Your task to perform on an android device: set default search engine in the chrome app Image 0: 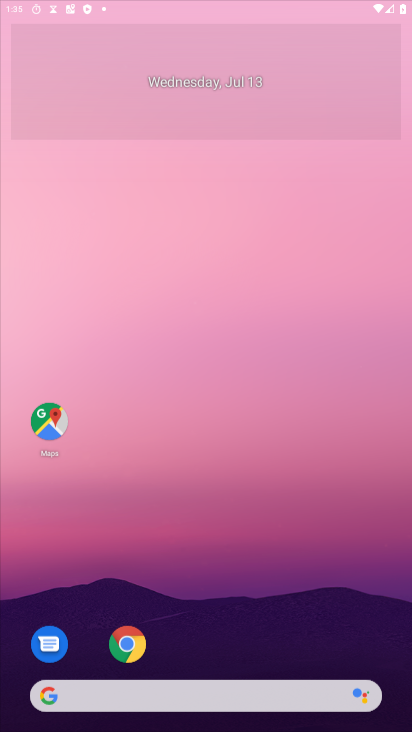
Step 0: press home button
Your task to perform on an android device: set default search engine in the chrome app Image 1: 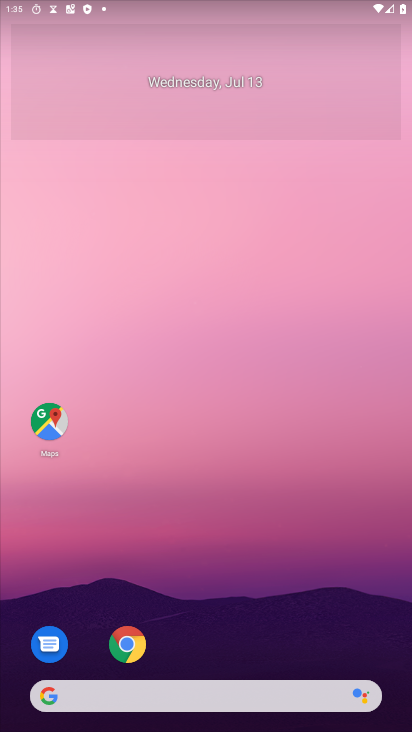
Step 1: drag from (229, 637) to (235, 3)
Your task to perform on an android device: set default search engine in the chrome app Image 2: 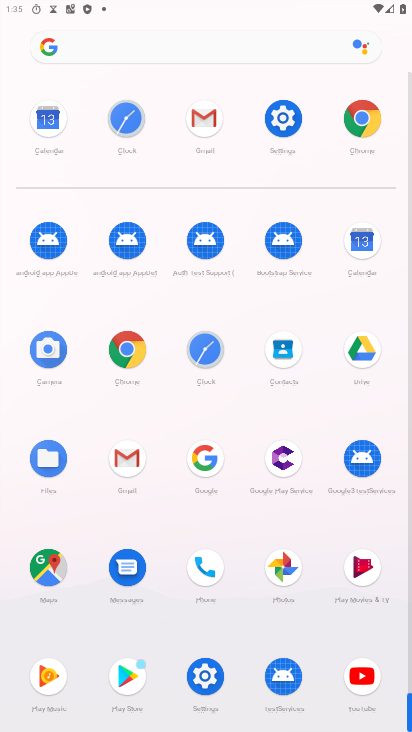
Step 2: click (122, 360)
Your task to perform on an android device: set default search engine in the chrome app Image 3: 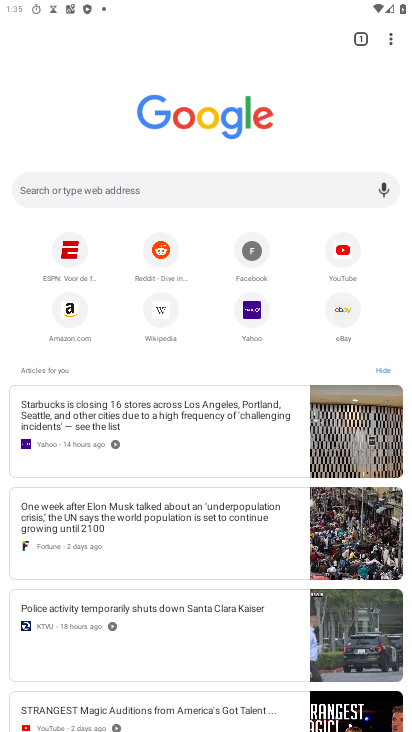
Step 3: click (394, 43)
Your task to perform on an android device: set default search engine in the chrome app Image 4: 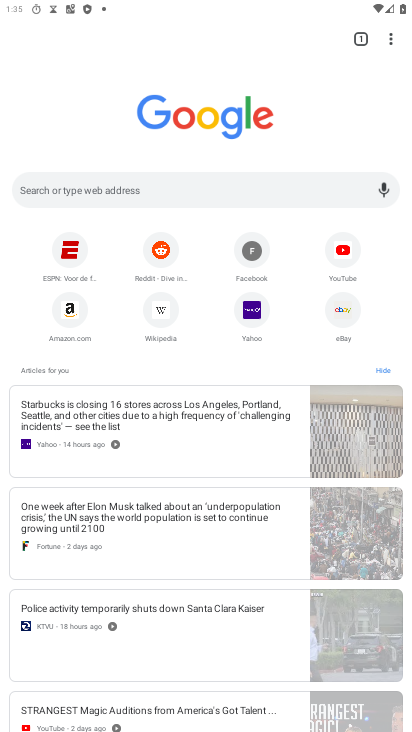
Step 4: drag from (390, 47) to (274, 325)
Your task to perform on an android device: set default search engine in the chrome app Image 5: 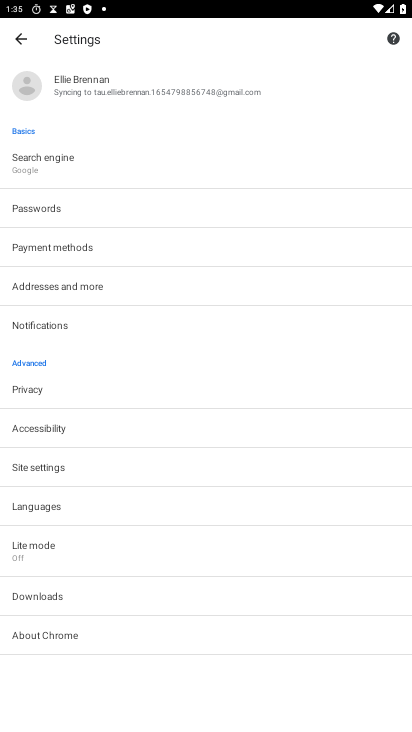
Step 5: click (29, 164)
Your task to perform on an android device: set default search engine in the chrome app Image 6: 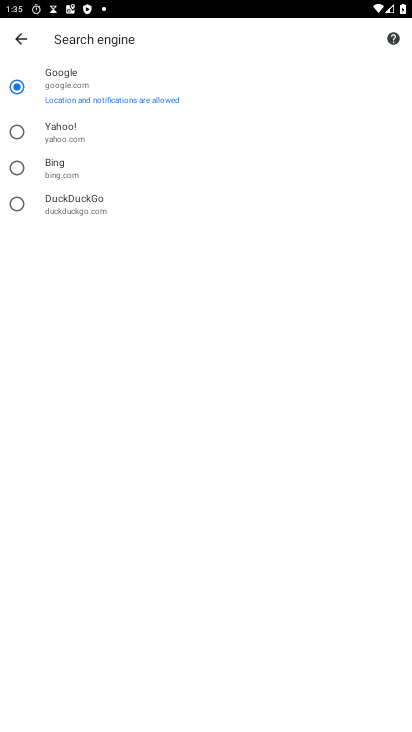
Step 6: click (59, 78)
Your task to perform on an android device: set default search engine in the chrome app Image 7: 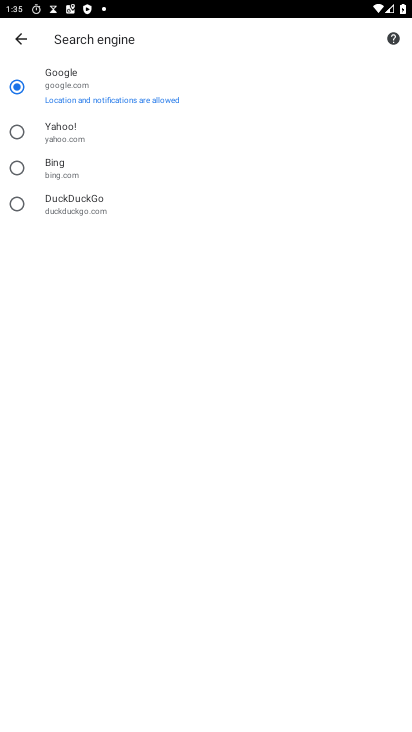
Step 7: task complete